Your task to perform on an android device: Open Google Maps Image 0: 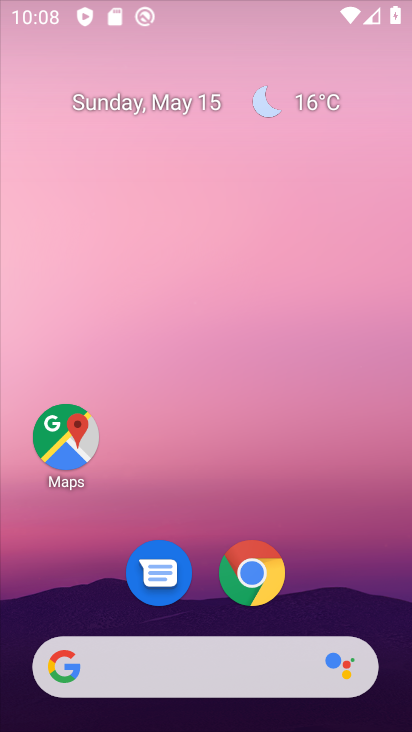
Step 0: drag from (303, 620) to (269, 113)
Your task to perform on an android device: Open Google Maps Image 1: 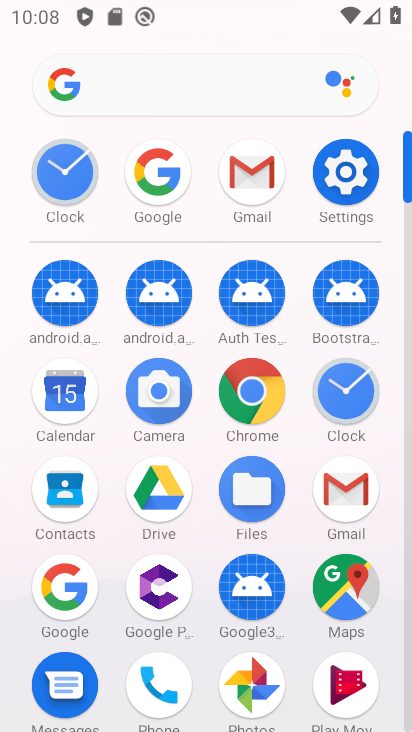
Step 1: click (342, 600)
Your task to perform on an android device: Open Google Maps Image 2: 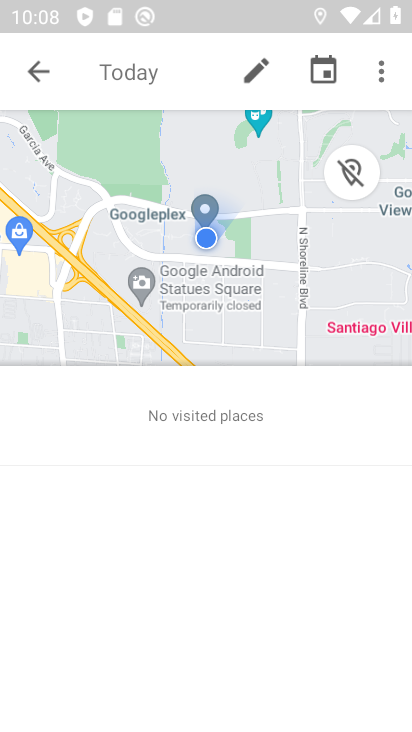
Step 2: task complete